Your task to perform on an android device: Go to Google Image 0: 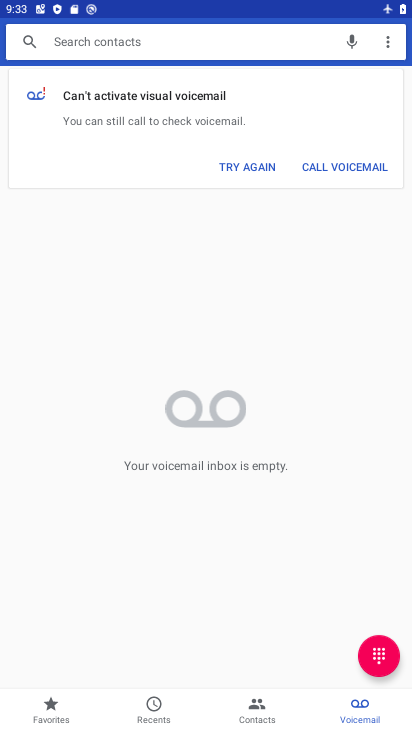
Step 0: press home button
Your task to perform on an android device: Go to Google Image 1: 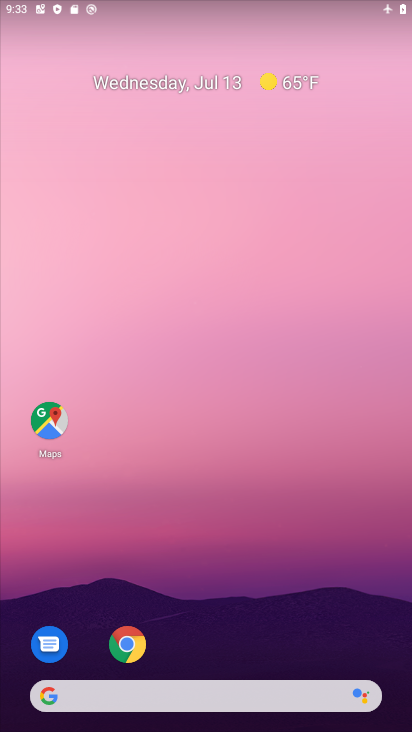
Step 1: drag from (371, 588) to (291, 86)
Your task to perform on an android device: Go to Google Image 2: 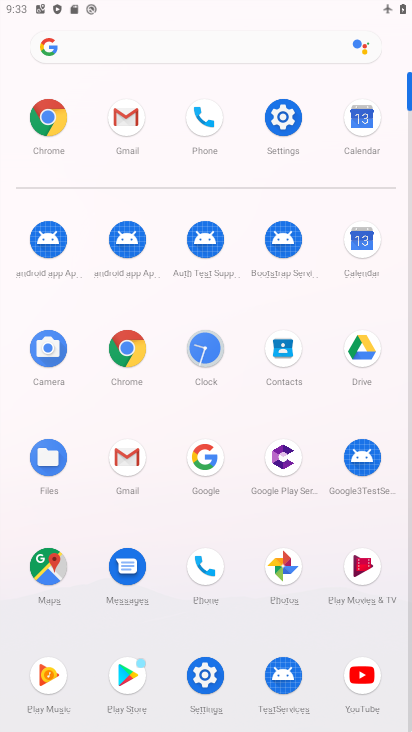
Step 2: click (214, 465)
Your task to perform on an android device: Go to Google Image 3: 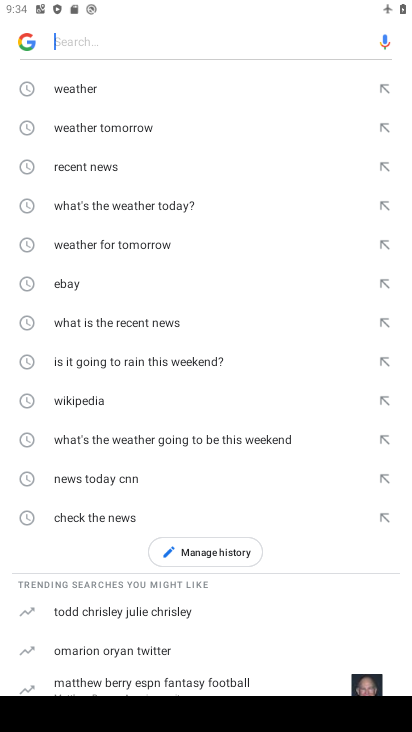
Step 3: task complete